Your task to perform on an android device: turn off wifi Image 0: 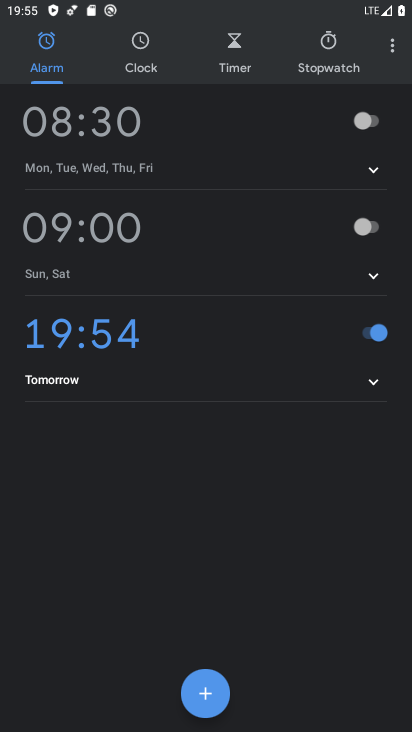
Step 0: press home button
Your task to perform on an android device: turn off wifi Image 1: 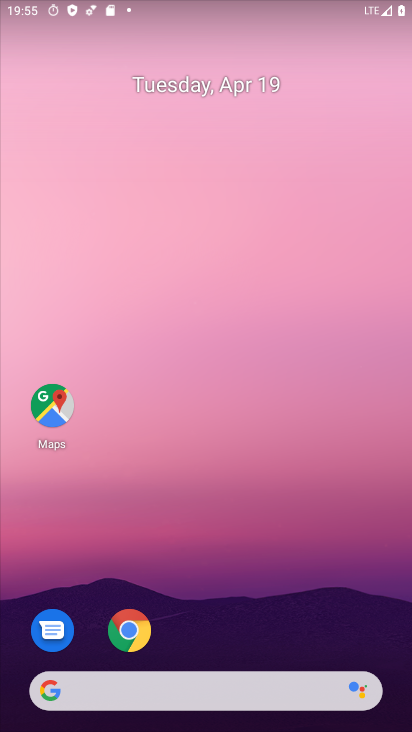
Step 1: drag from (215, 652) to (301, 103)
Your task to perform on an android device: turn off wifi Image 2: 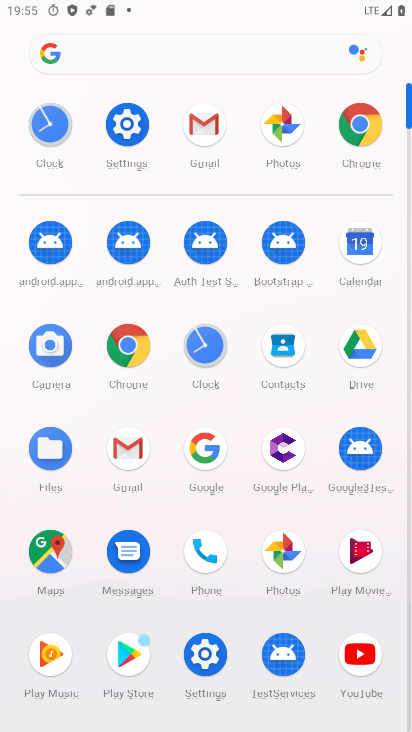
Step 2: click (131, 132)
Your task to perform on an android device: turn off wifi Image 3: 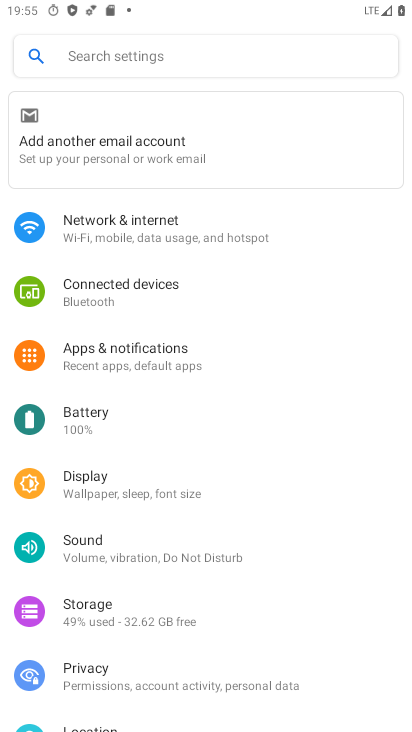
Step 3: click (140, 217)
Your task to perform on an android device: turn off wifi Image 4: 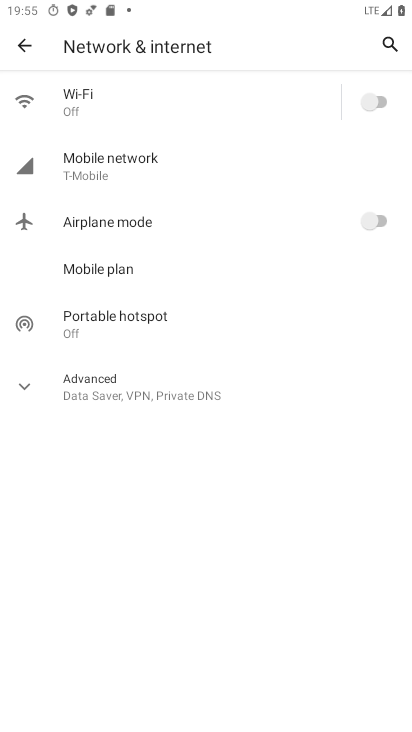
Step 4: click (210, 90)
Your task to perform on an android device: turn off wifi Image 5: 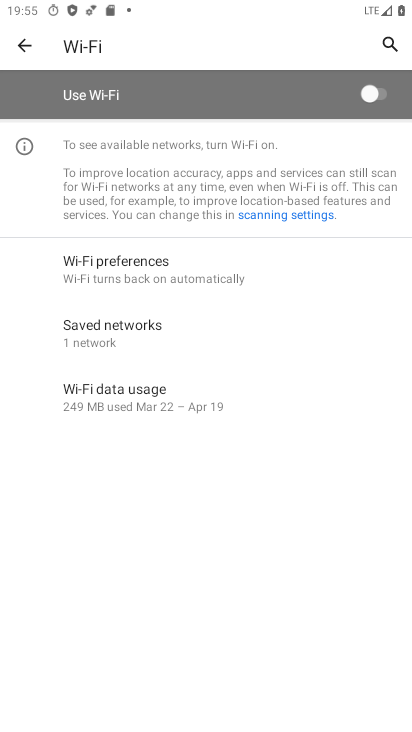
Step 5: task complete